Your task to perform on an android device: Add "alienware aurora" to the cart on bestbuy.com Image 0: 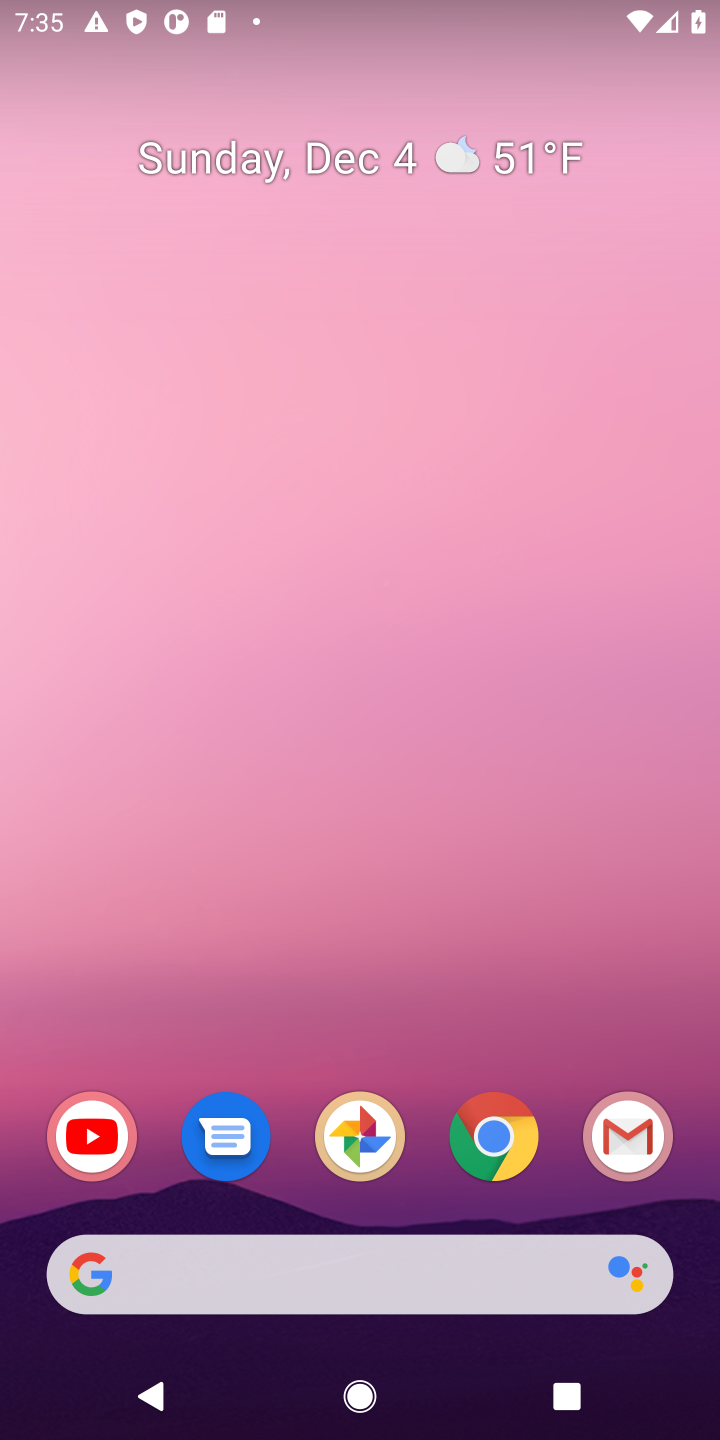
Step 0: click (508, 1149)
Your task to perform on an android device: Add "alienware aurora" to the cart on bestbuy.com Image 1: 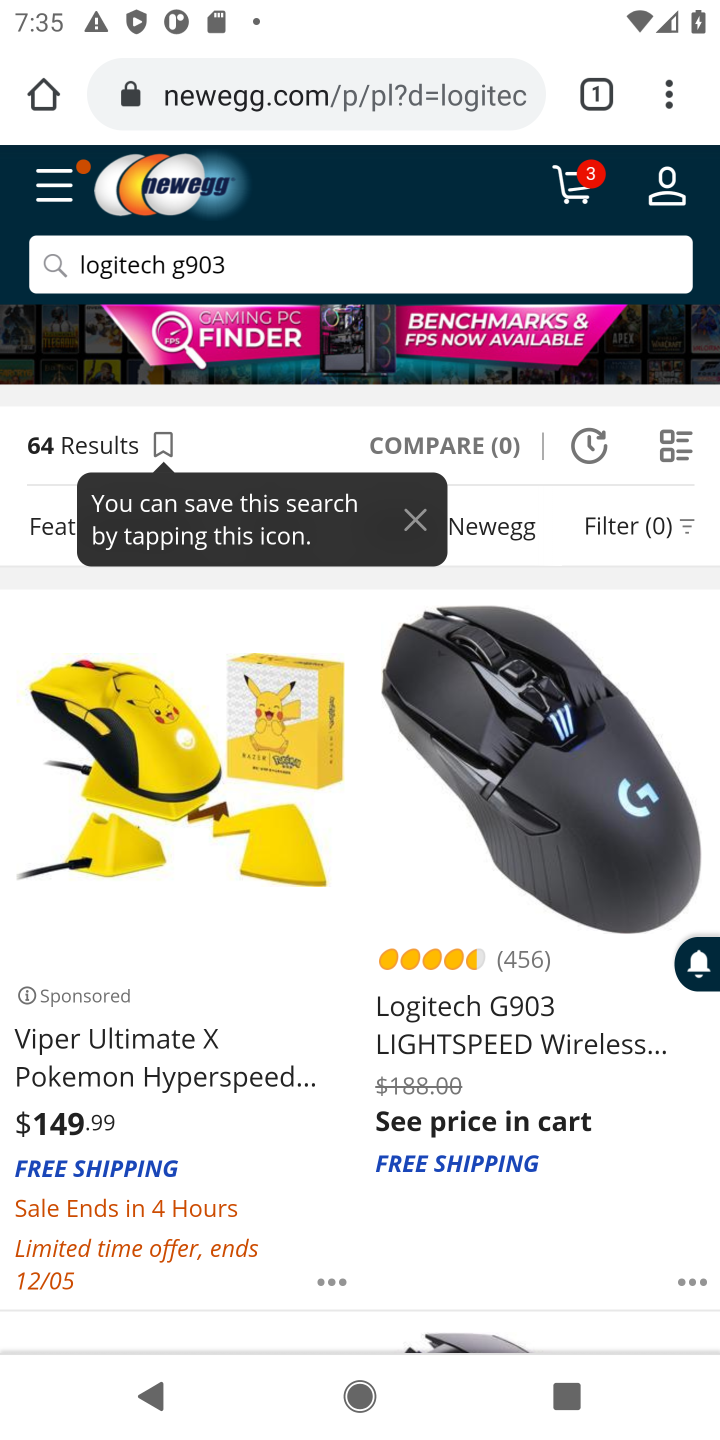
Step 1: click (253, 99)
Your task to perform on an android device: Add "alienware aurora" to the cart on bestbuy.com Image 2: 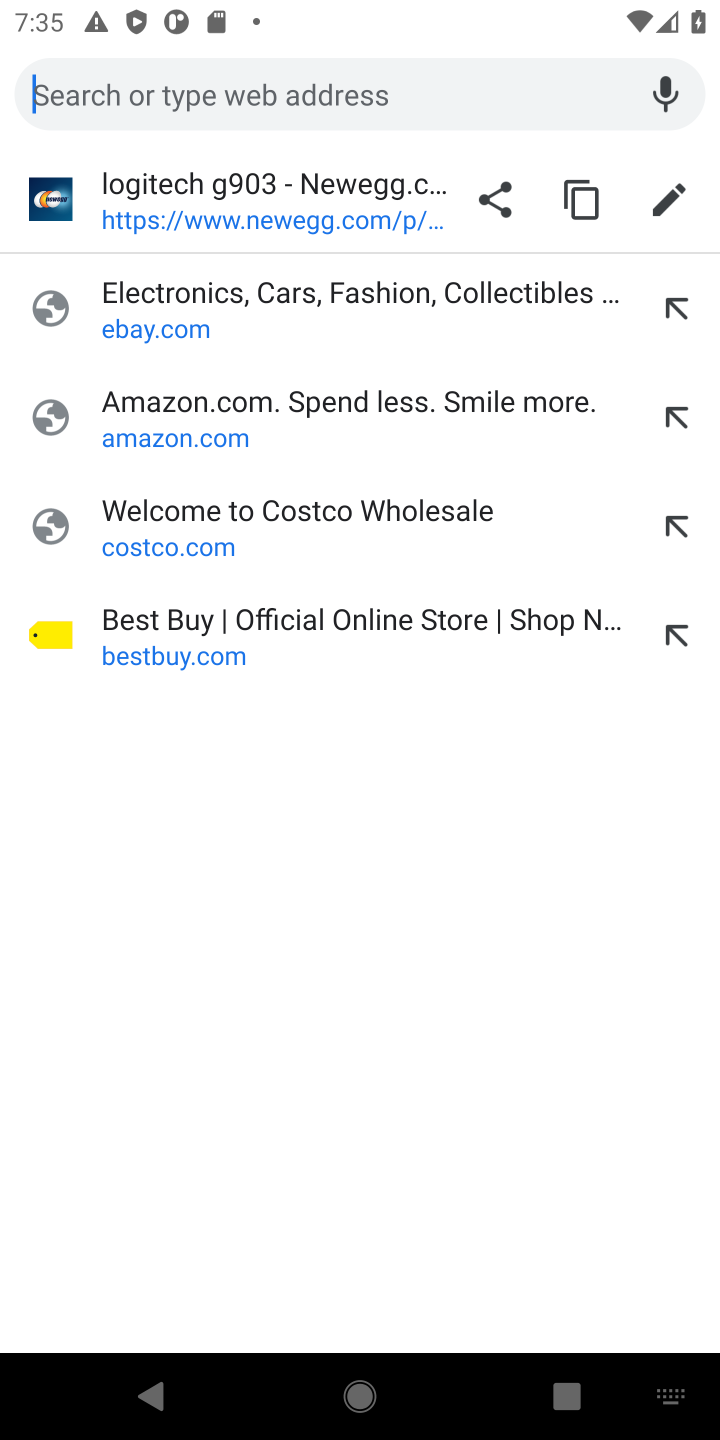
Step 2: click (144, 651)
Your task to perform on an android device: Add "alienware aurora" to the cart on bestbuy.com Image 3: 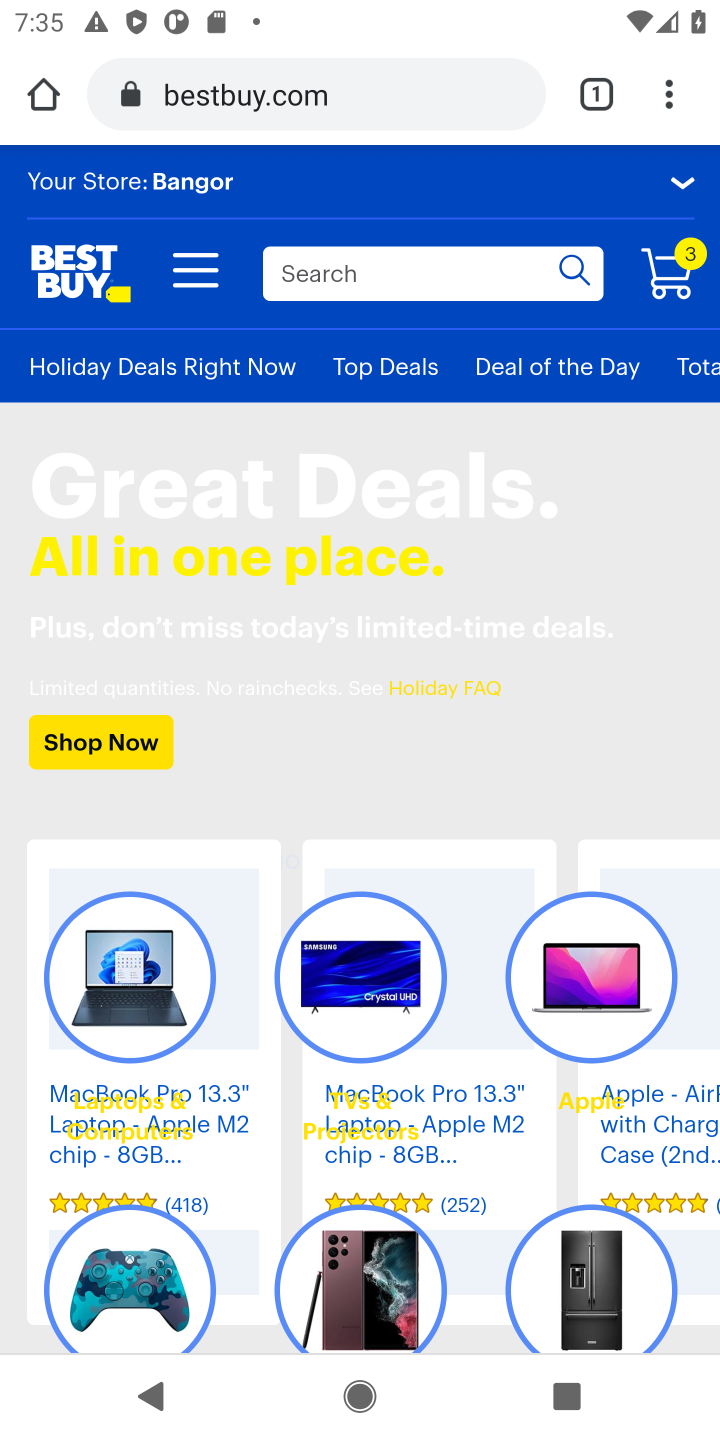
Step 3: click (291, 274)
Your task to perform on an android device: Add "alienware aurora" to the cart on bestbuy.com Image 4: 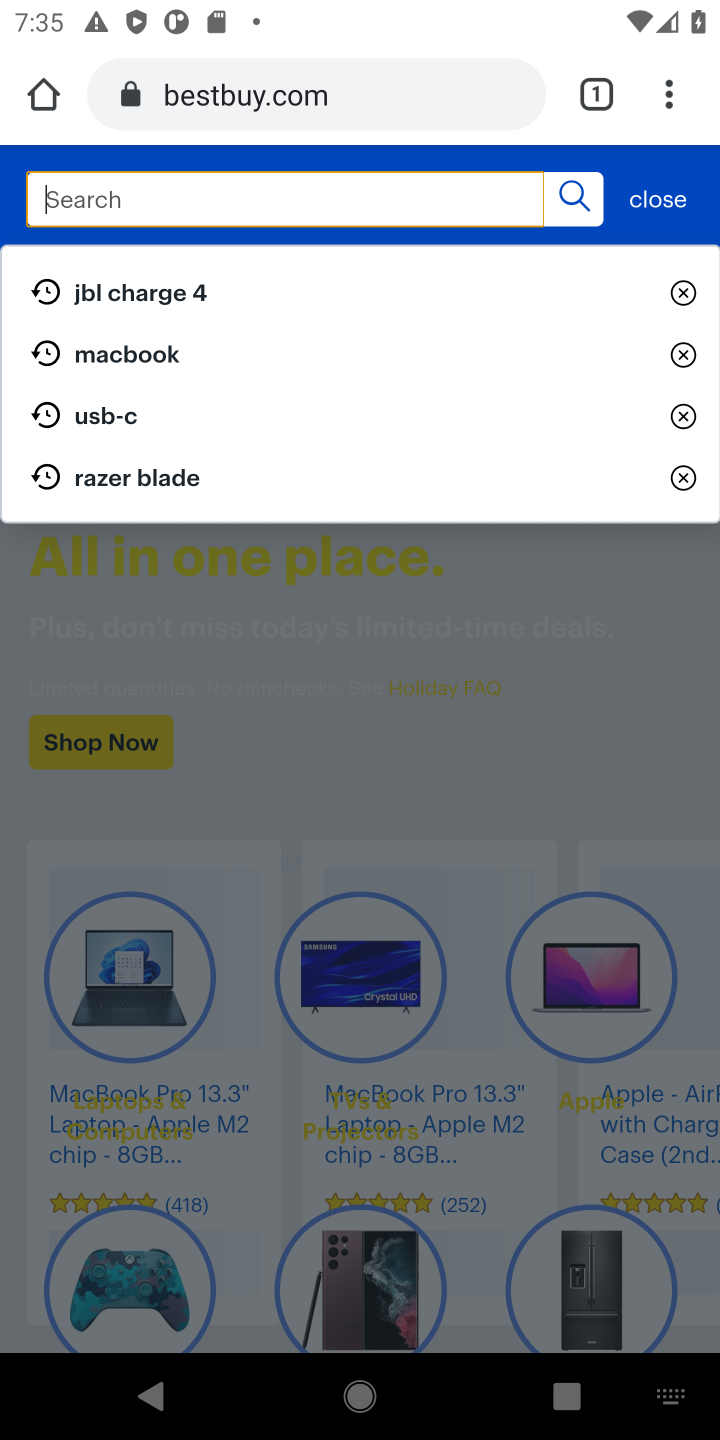
Step 4: type "alienware aurora"
Your task to perform on an android device: Add "alienware aurora" to the cart on bestbuy.com Image 5: 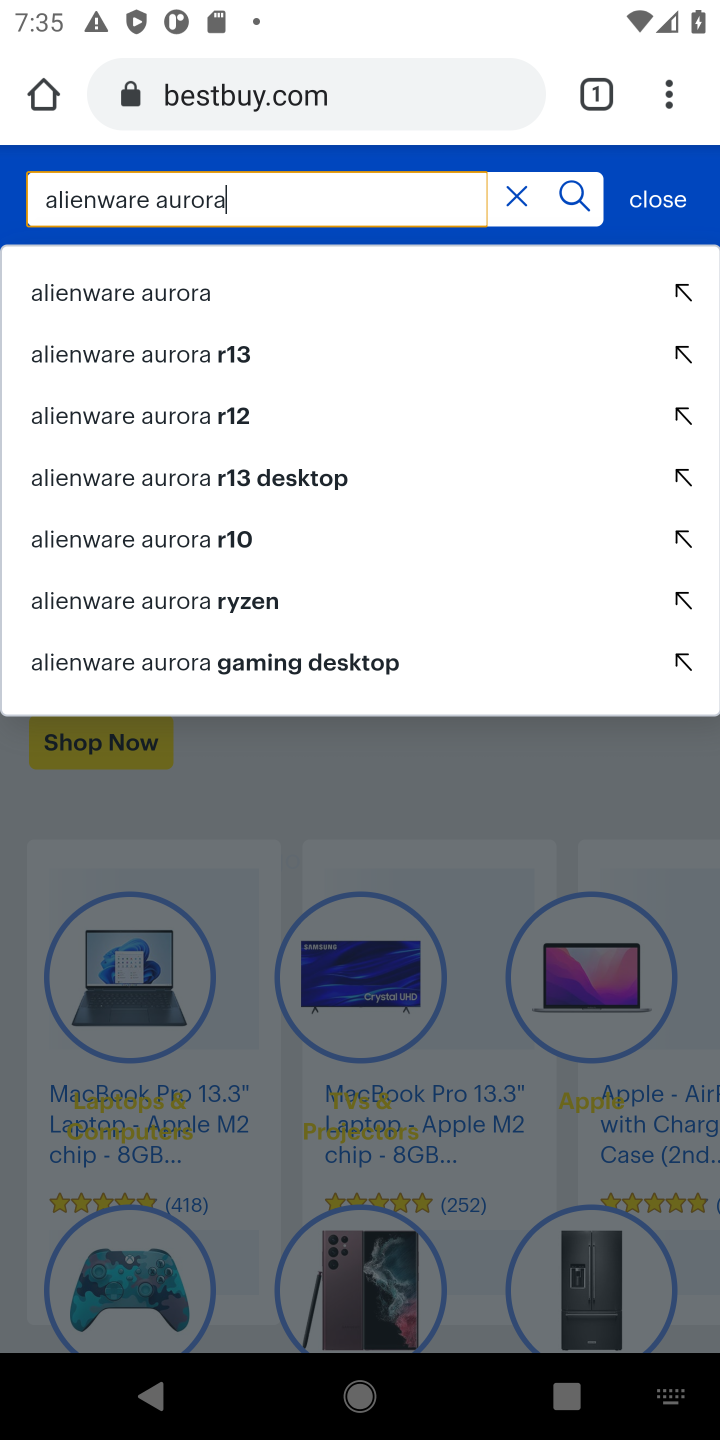
Step 5: click (85, 297)
Your task to perform on an android device: Add "alienware aurora" to the cart on bestbuy.com Image 6: 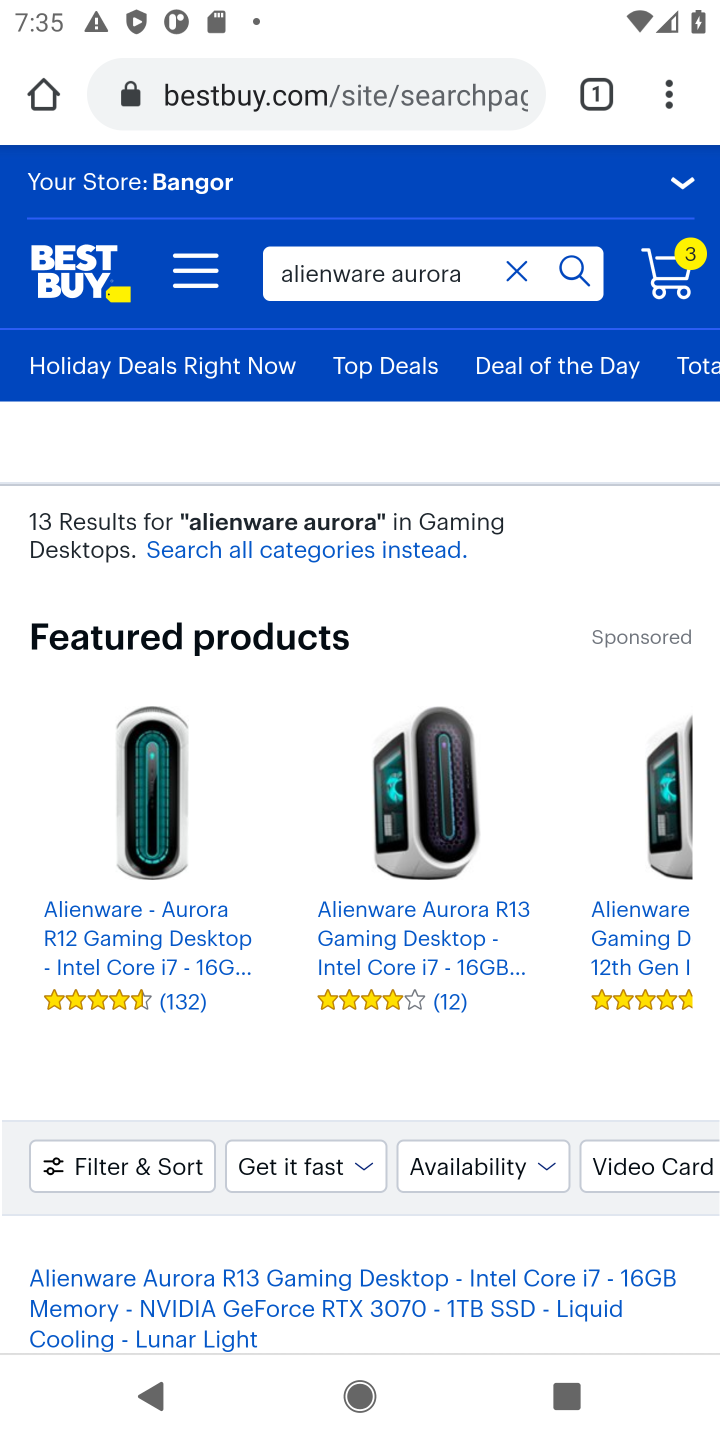
Step 6: drag from (395, 1024) to (371, 403)
Your task to perform on an android device: Add "alienware aurora" to the cart on bestbuy.com Image 7: 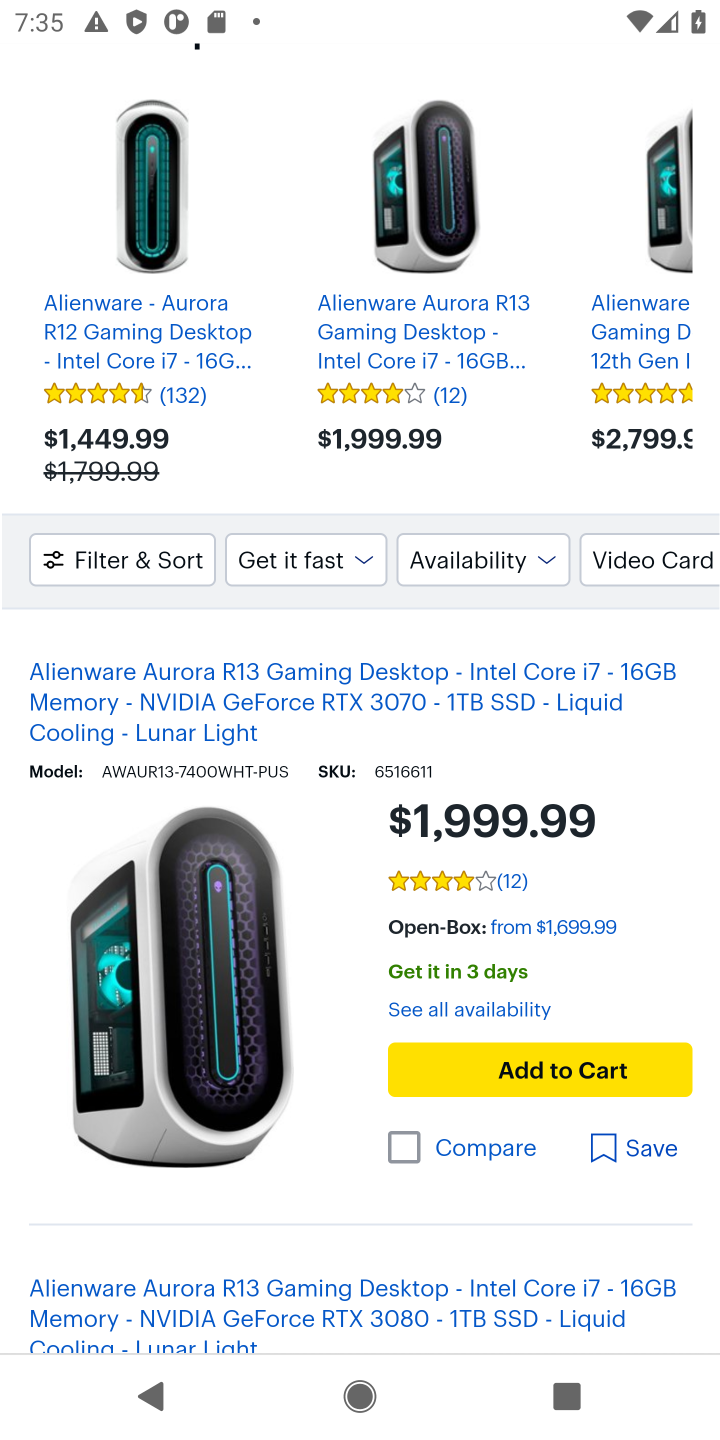
Step 7: click (547, 1056)
Your task to perform on an android device: Add "alienware aurora" to the cart on bestbuy.com Image 8: 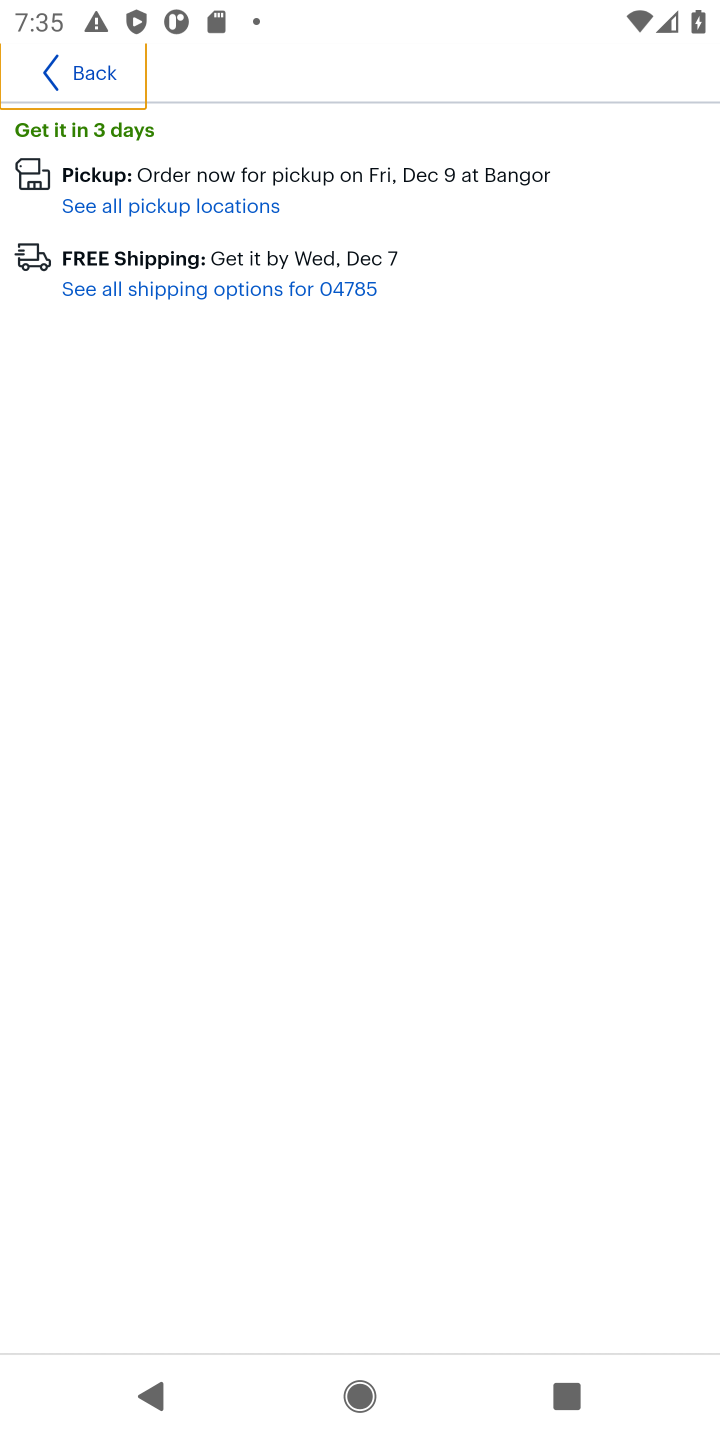
Step 8: click (46, 88)
Your task to perform on an android device: Add "alienware aurora" to the cart on bestbuy.com Image 9: 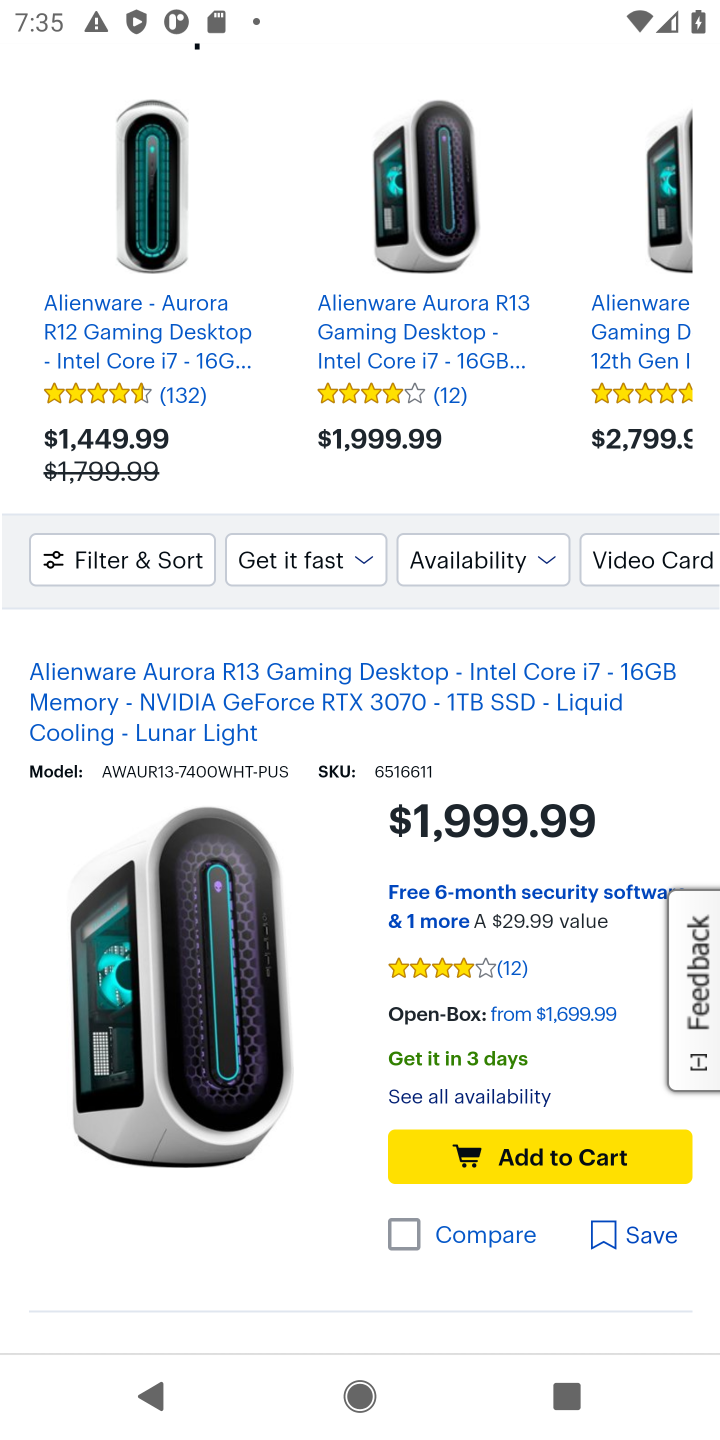
Step 9: click (548, 1155)
Your task to perform on an android device: Add "alienware aurora" to the cart on bestbuy.com Image 10: 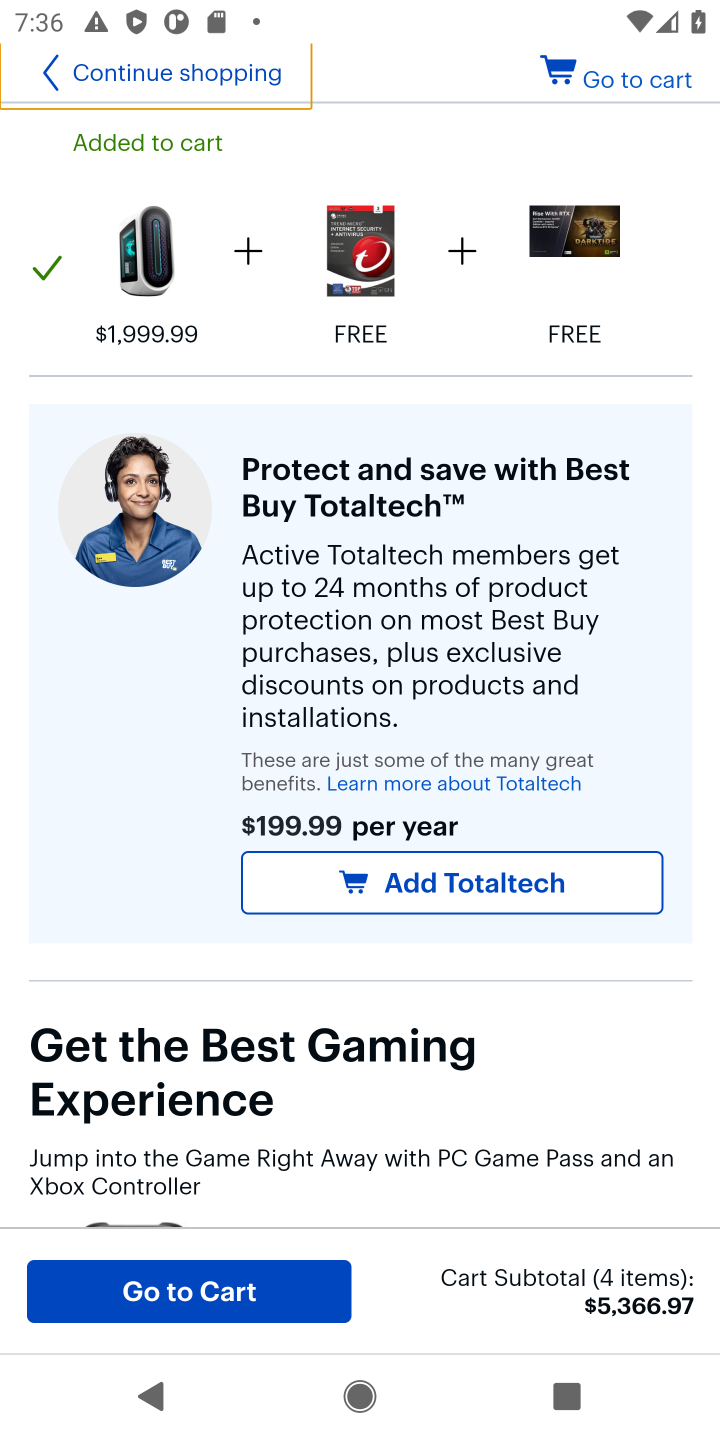
Step 10: task complete